Your task to perform on an android device: stop showing notifications on the lock screen Image 0: 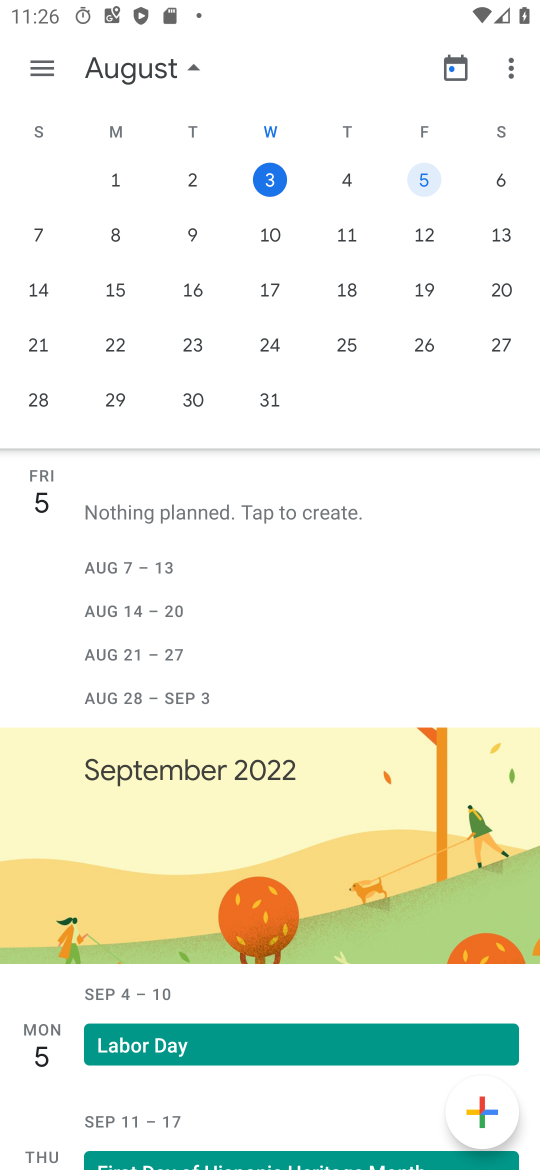
Step 0: press back button
Your task to perform on an android device: stop showing notifications on the lock screen Image 1: 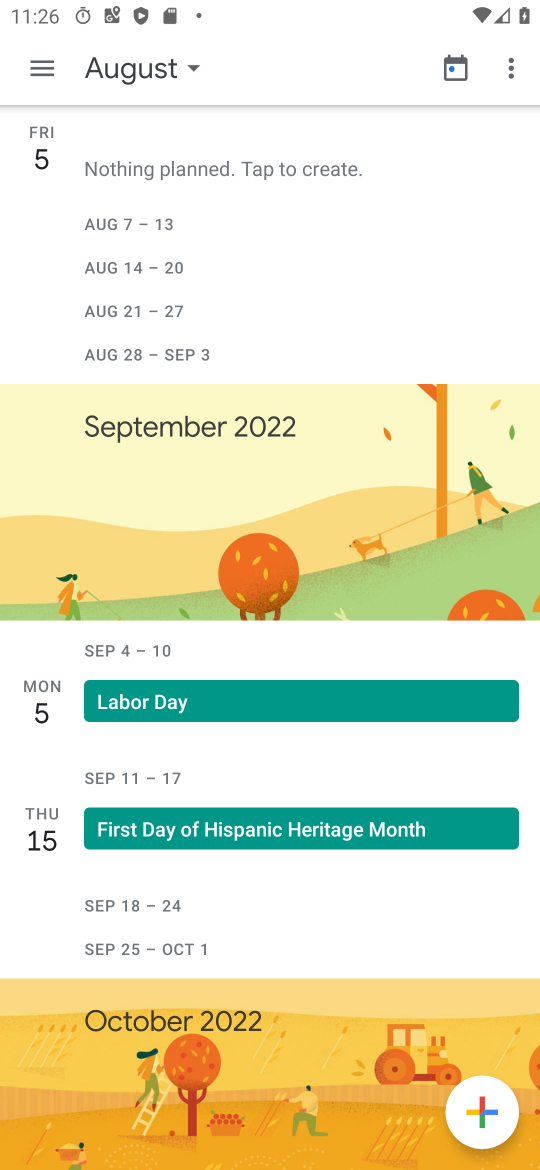
Step 1: click (325, 54)
Your task to perform on an android device: stop showing notifications on the lock screen Image 2: 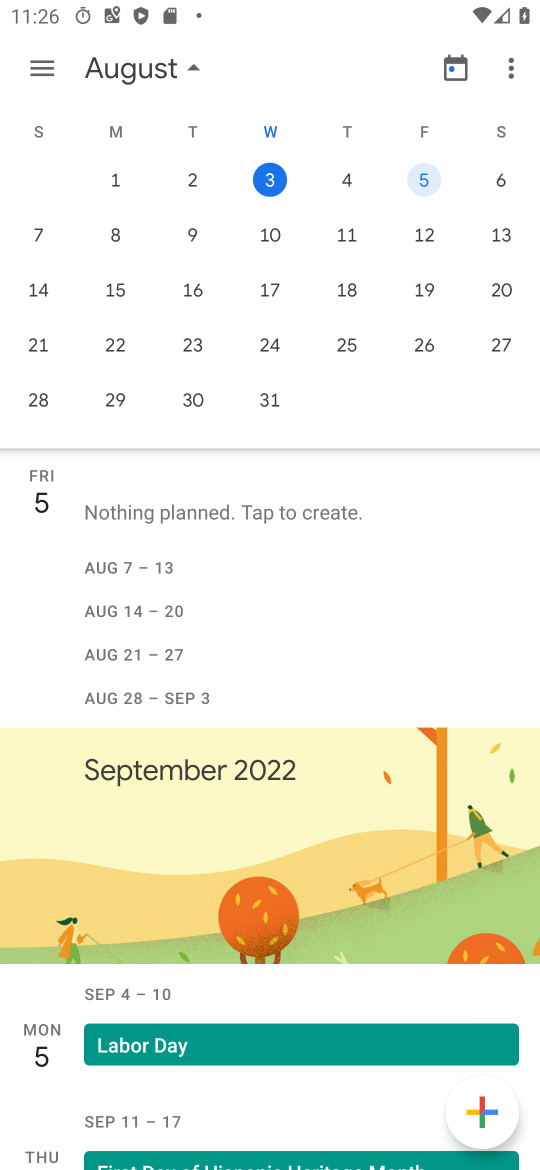
Step 2: press home button
Your task to perform on an android device: stop showing notifications on the lock screen Image 3: 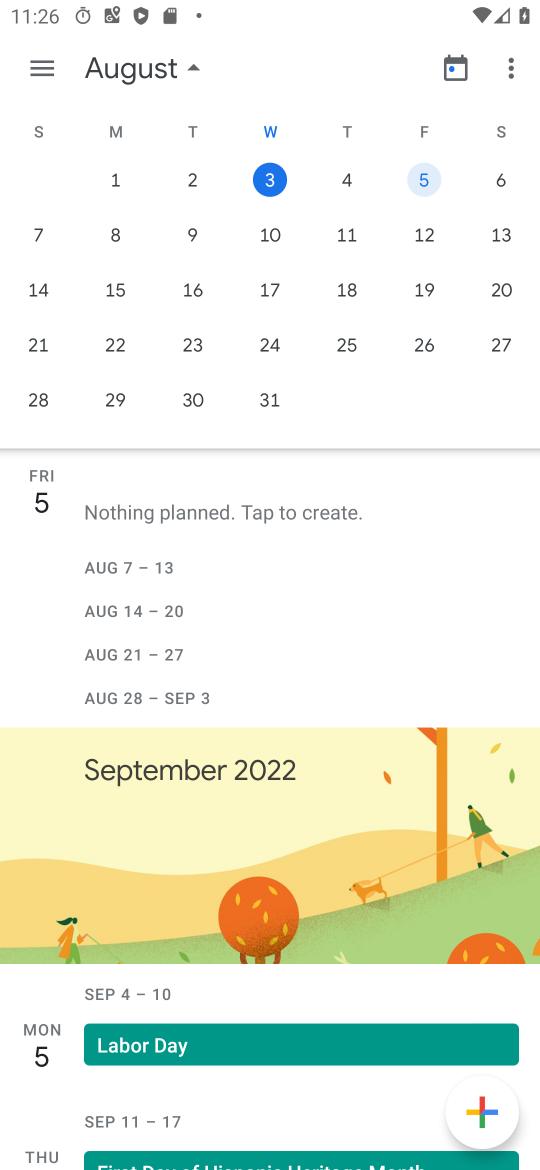
Step 3: press back button
Your task to perform on an android device: stop showing notifications on the lock screen Image 4: 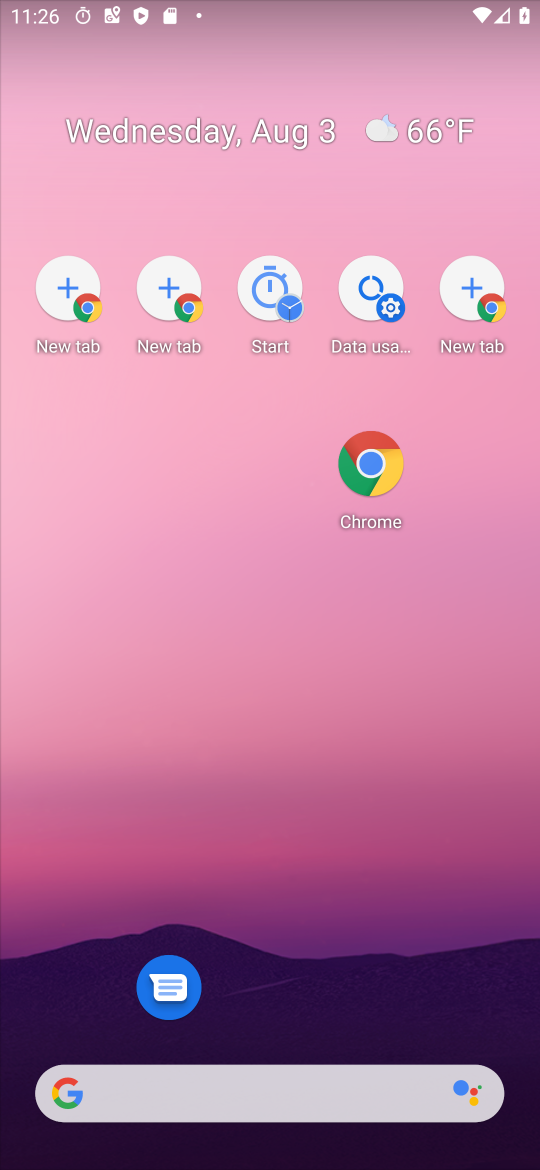
Step 4: drag from (330, 1069) to (192, 22)
Your task to perform on an android device: stop showing notifications on the lock screen Image 5: 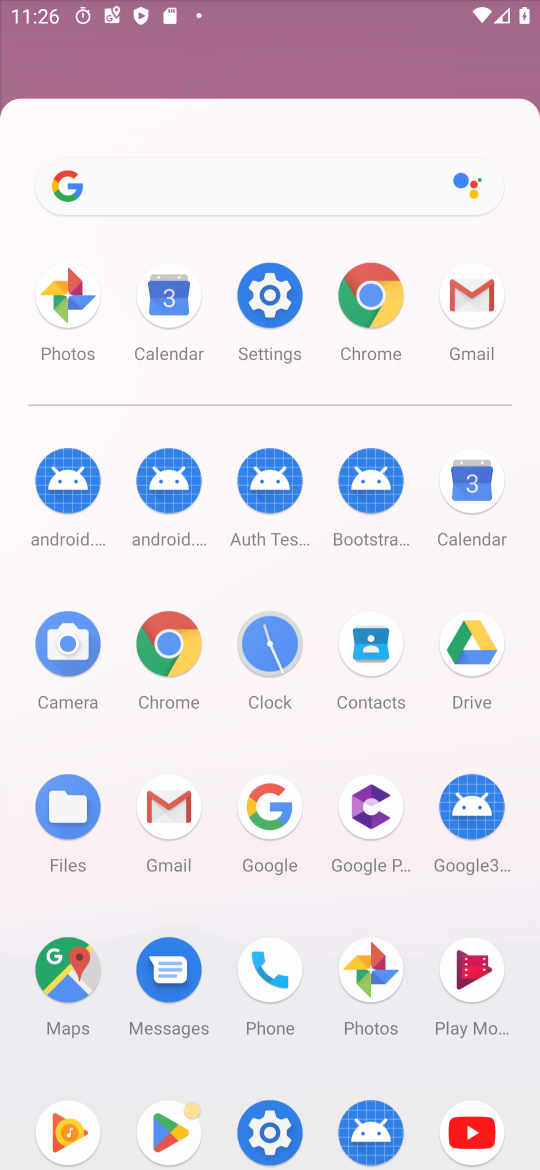
Step 5: drag from (306, 674) to (234, 67)
Your task to perform on an android device: stop showing notifications on the lock screen Image 6: 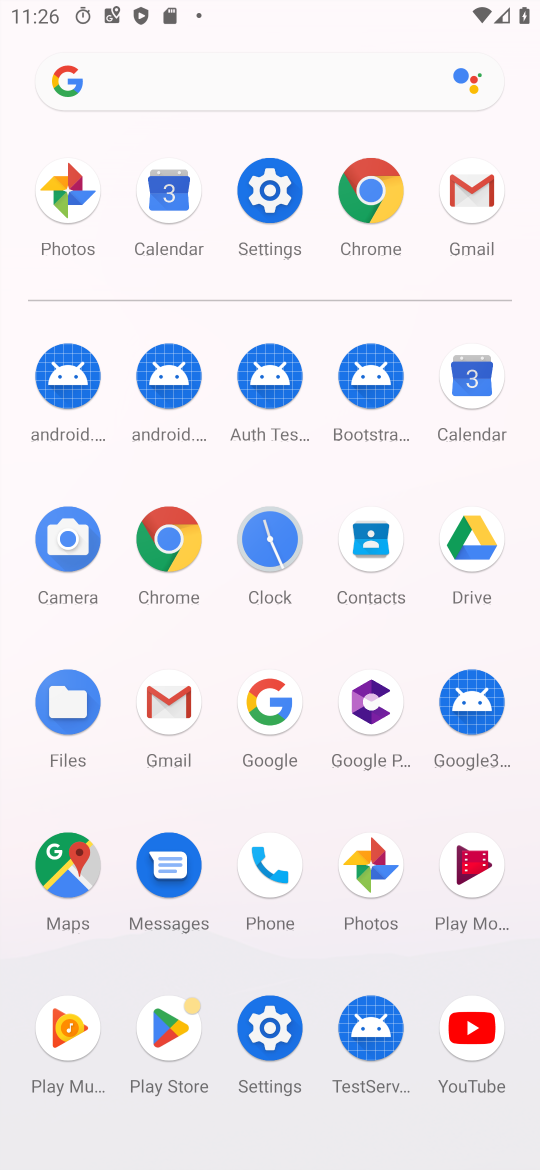
Step 6: click (247, 191)
Your task to perform on an android device: stop showing notifications on the lock screen Image 7: 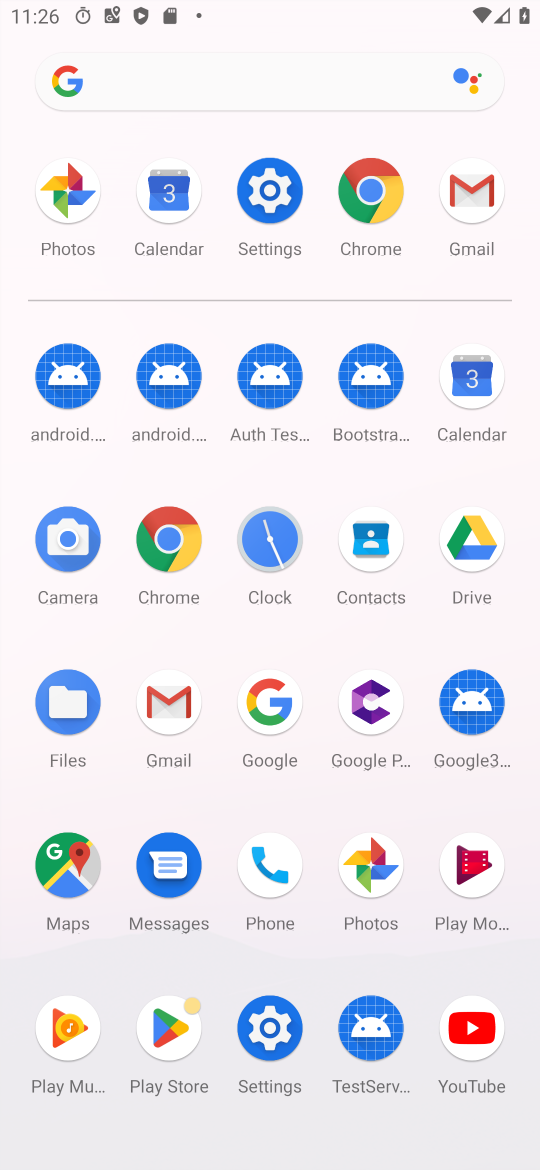
Step 7: click (267, 196)
Your task to perform on an android device: stop showing notifications on the lock screen Image 8: 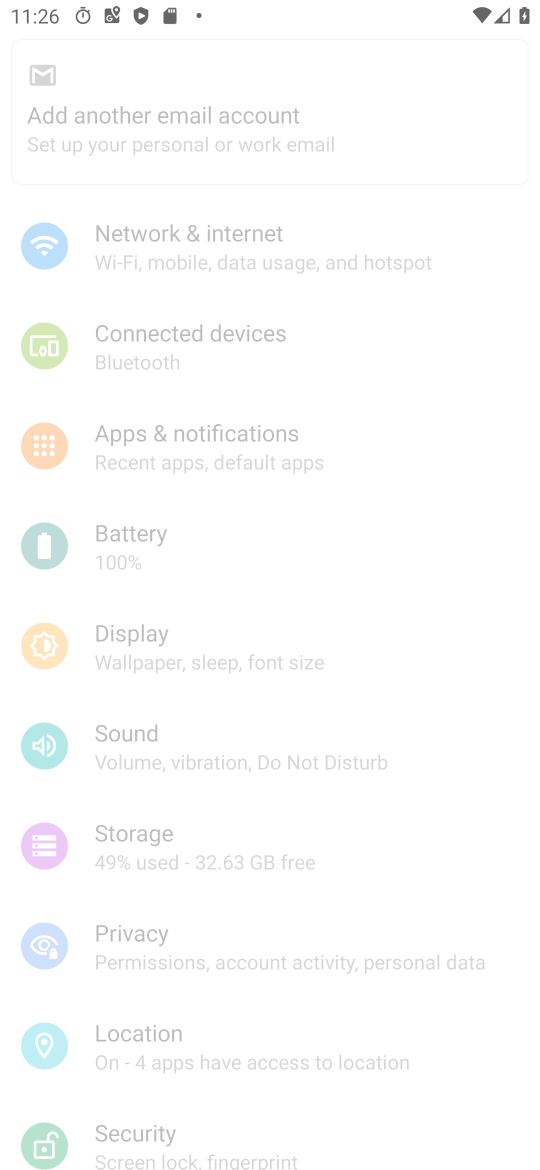
Step 8: click (255, 202)
Your task to perform on an android device: stop showing notifications on the lock screen Image 9: 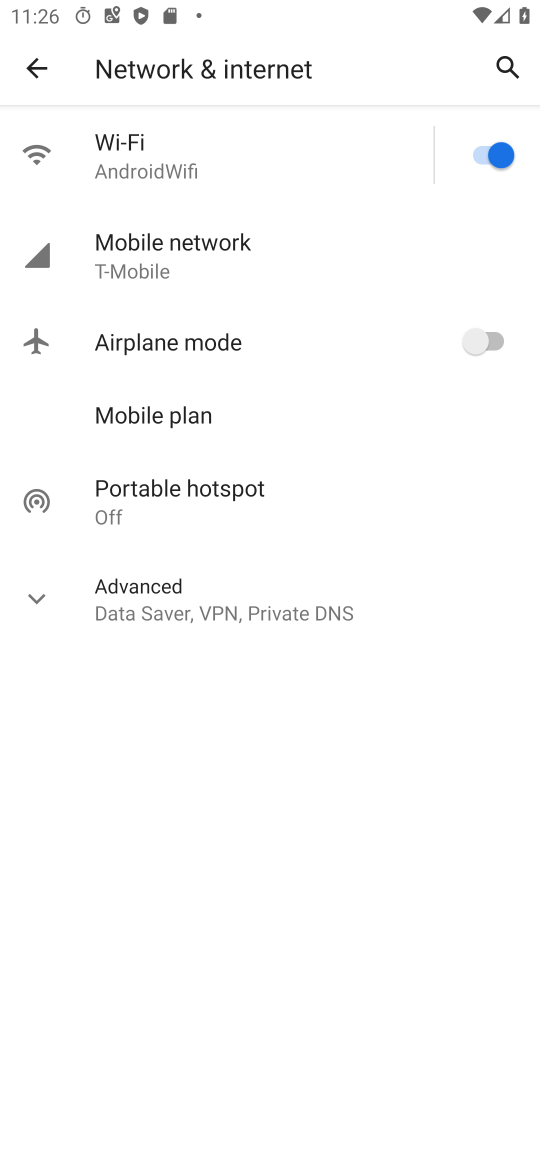
Step 9: click (24, 79)
Your task to perform on an android device: stop showing notifications on the lock screen Image 10: 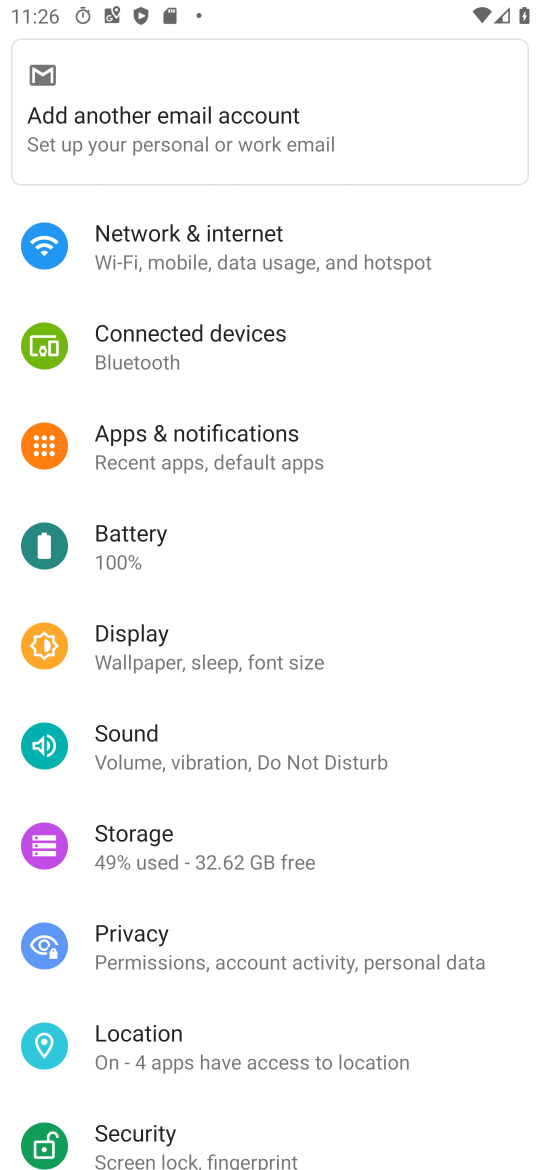
Step 10: click (193, 446)
Your task to perform on an android device: stop showing notifications on the lock screen Image 11: 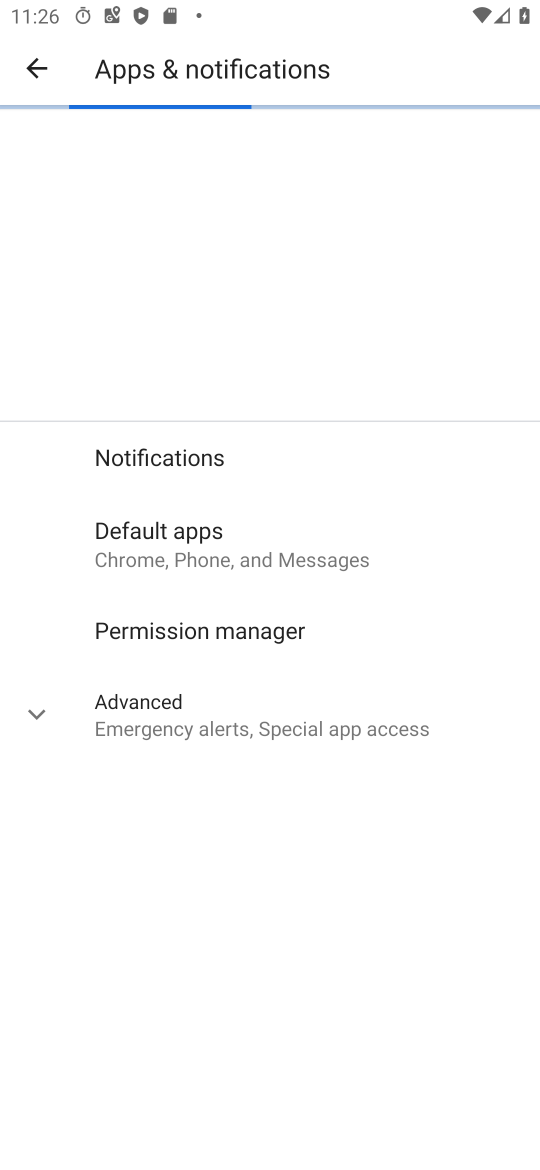
Step 11: click (193, 446)
Your task to perform on an android device: stop showing notifications on the lock screen Image 12: 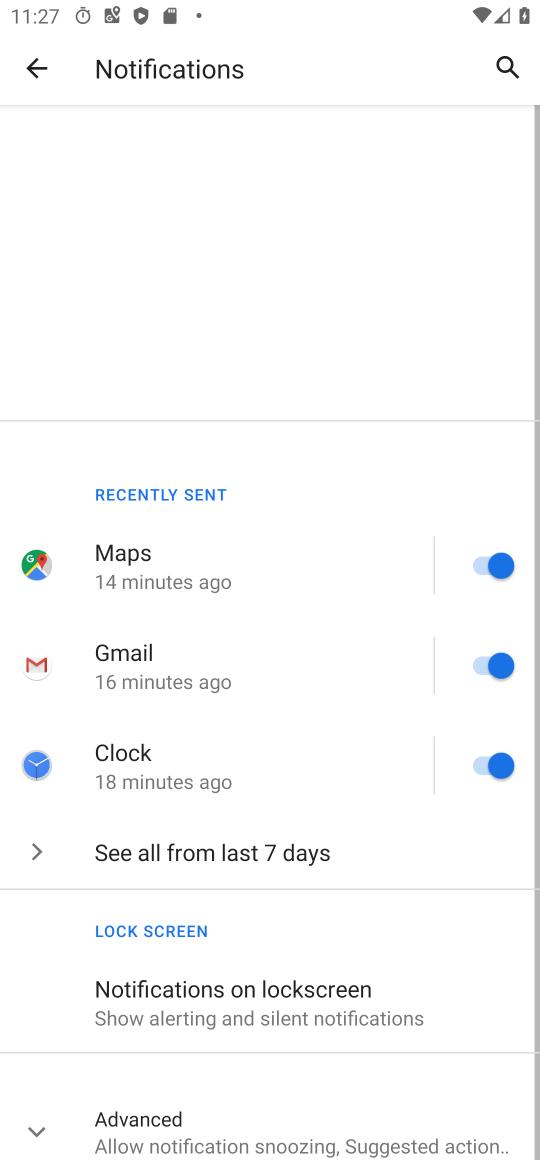
Step 12: click (30, 72)
Your task to perform on an android device: stop showing notifications on the lock screen Image 13: 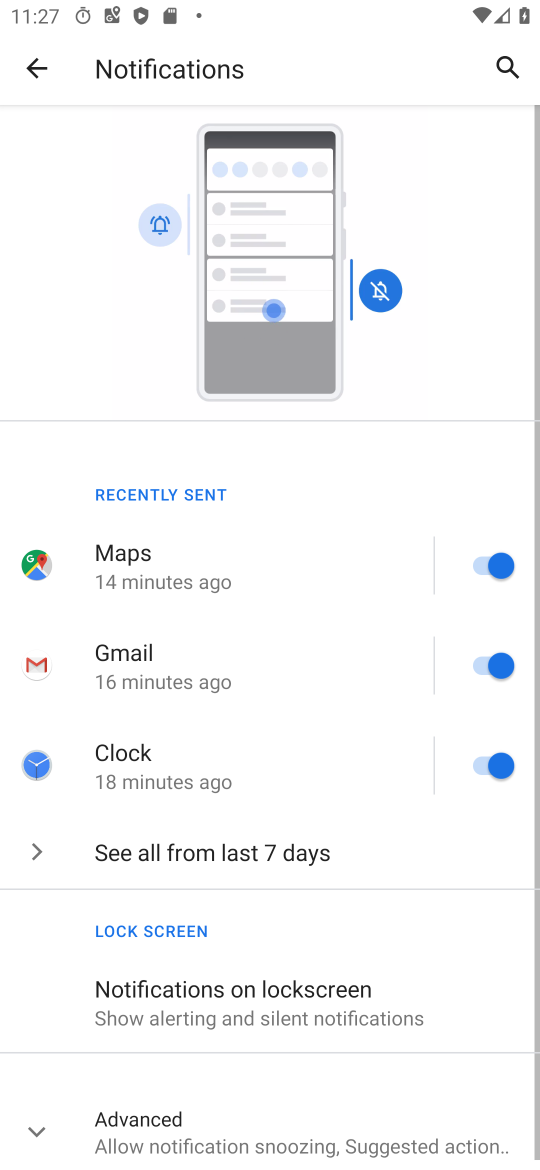
Step 13: click (182, 1004)
Your task to perform on an android device: stop showing notifications on the lock screen Image 14: 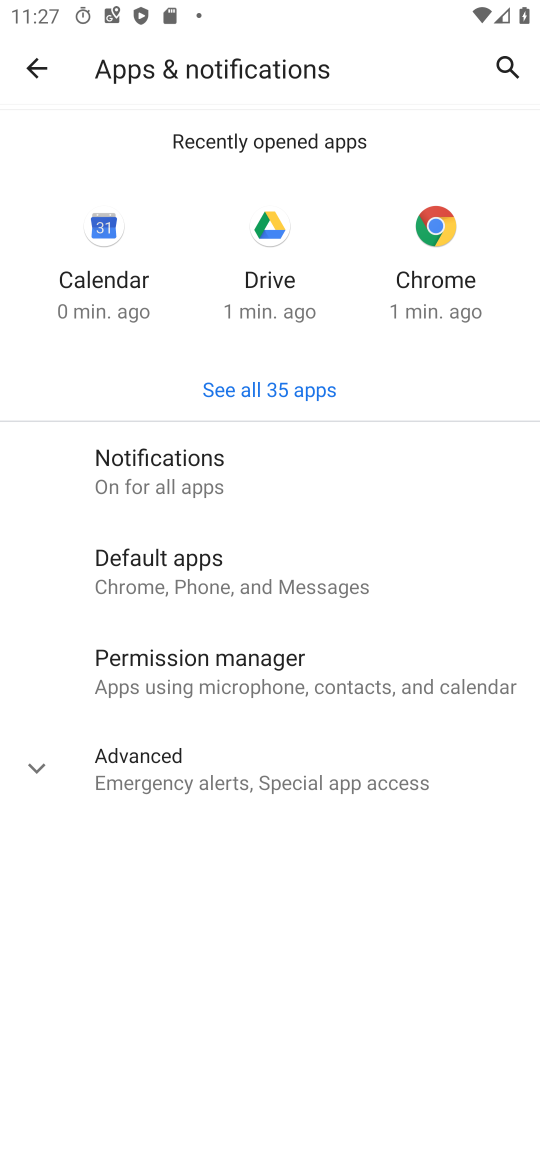
Step 14: click (147, 472)
Your task to perform on an android device: stop showing notifications on the lock screen Image 15: 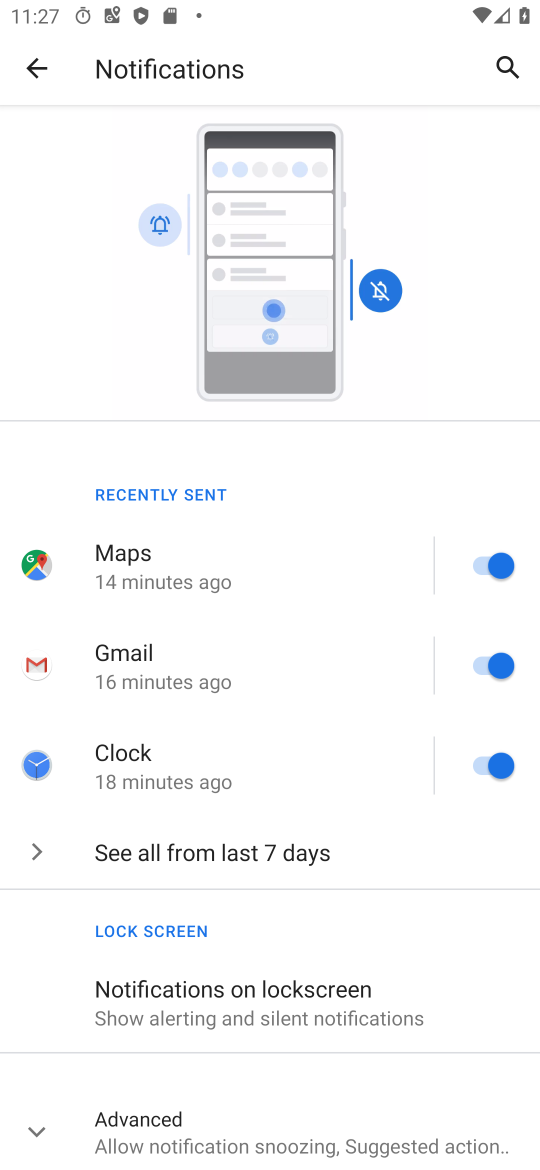
Step 15: click (293, 1002)
Your task to perform on an android device: stop showing notifications on the lock screen Image 16: 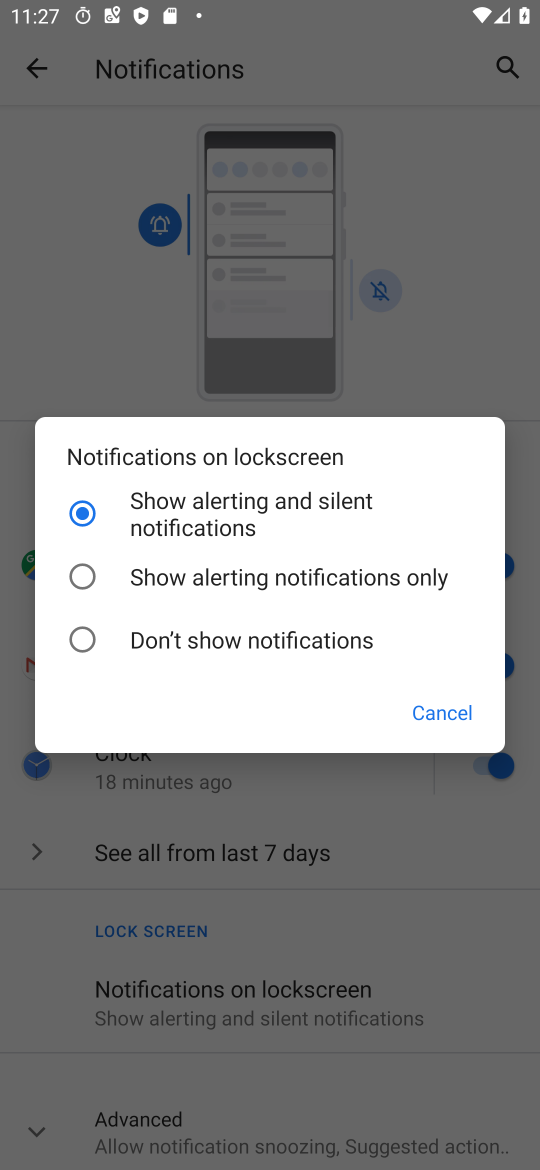
Step 16: click (80, 643)
Your task to perform on an android device: stop showing notifications on the lock screen Image 17: 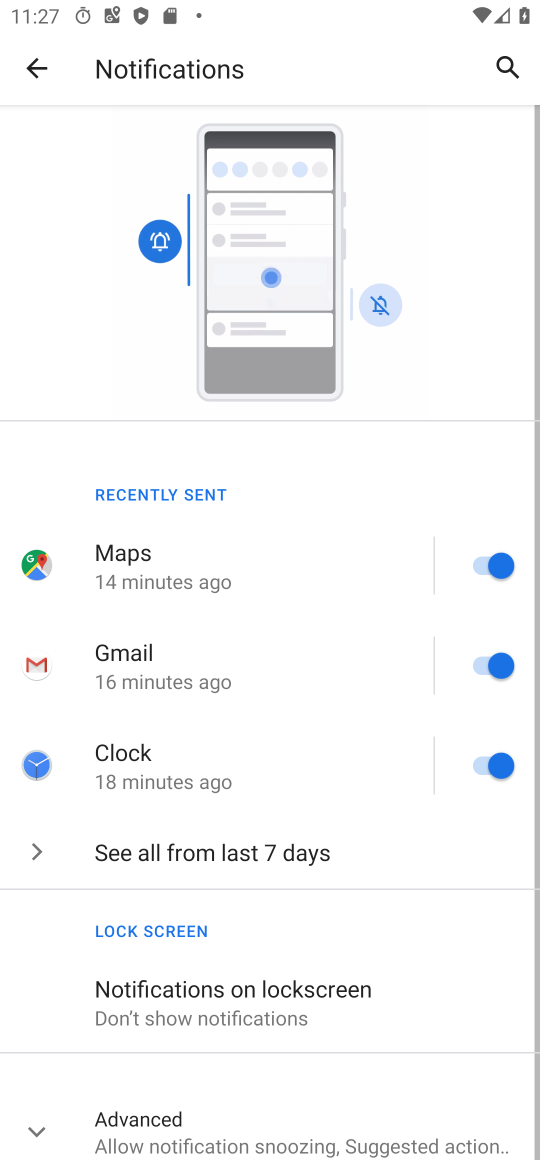
Step 17: task complete